Your task to perform on an android device: Open Google Maps and go to "Timeline" Image 0: 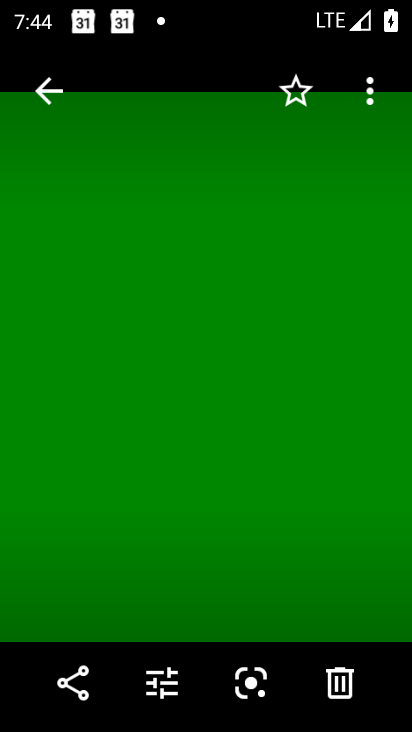
Step 0: press home button
Your task to perform on an android device: Open Google Maps and go to "Timeline" Image 1: 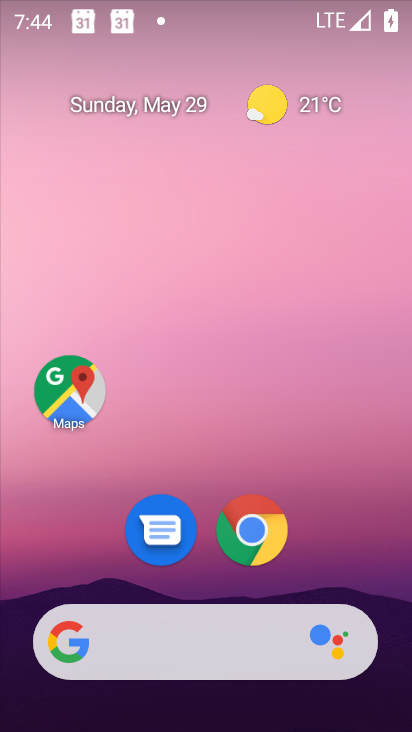
Step 1: drag from (253, 687) to (236, 102)
Your task to perform on an android device: Open Google Maps and go to "Timeline" Image 2: 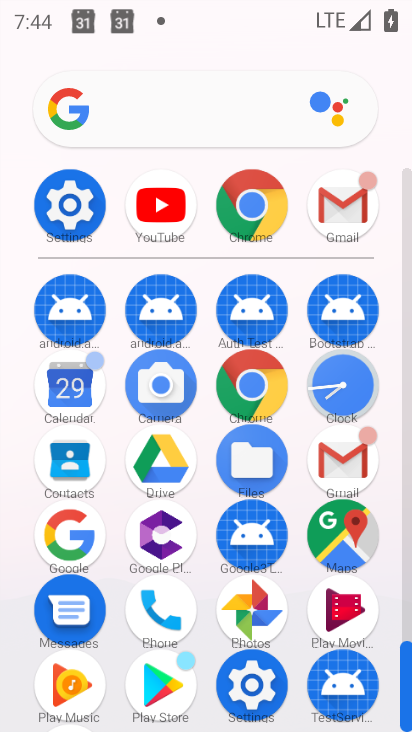
Step 2: click (350, 560)
Your task to perform on an android device: Open Google Maps and go to "Timeline" Image 3: 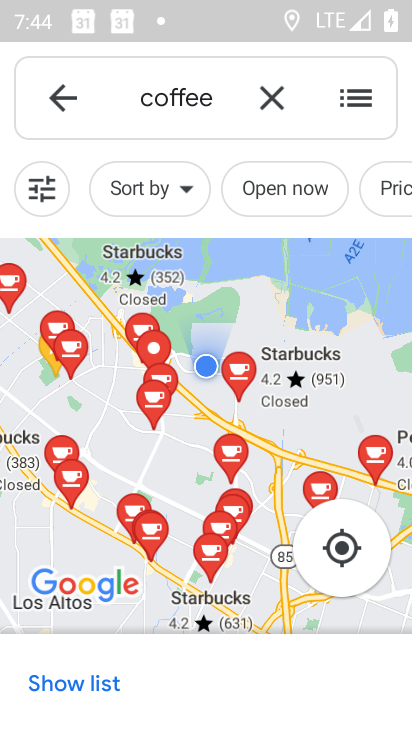
Step 3: click (52, 84)
Your task to perform on an android device: Open Google Maps and go to "Timeline" Image 4: 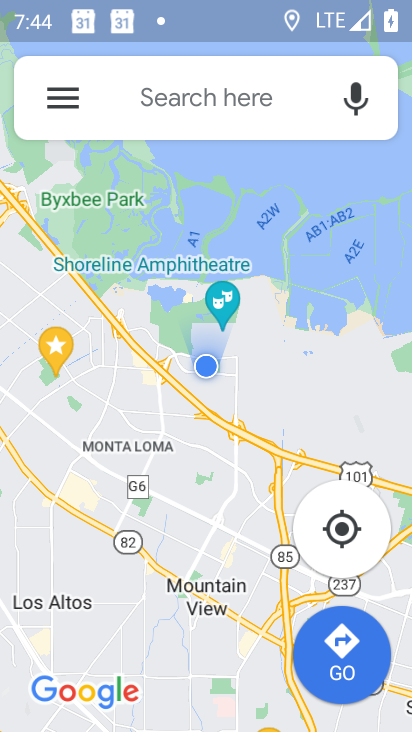
Step 4: click (53, 101)
Your task to perform on an android device: Open Google Maps and go to "Timeline" Image 5: 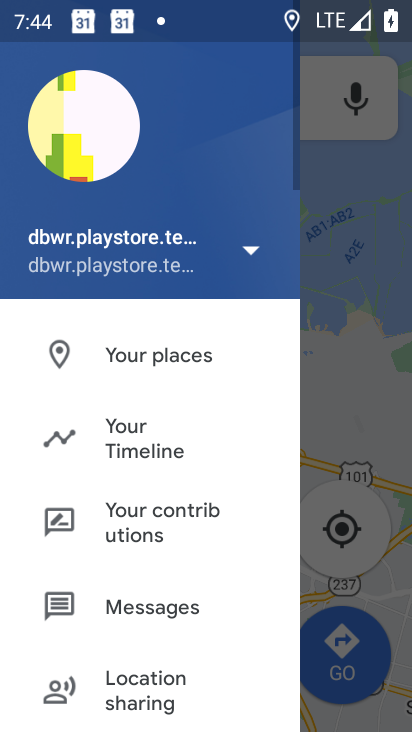
Step 5: click (160, 454)
Your task to perform on an android device: Open Google Maps and go to "Timeline" Image 6: 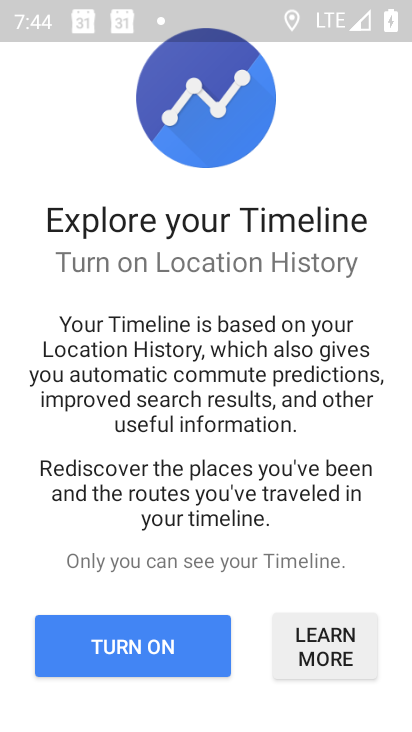
Step 6: click (181, 662)
Your task to perform on an android device: Open Google Maps and go to "Timeline" Image 7: 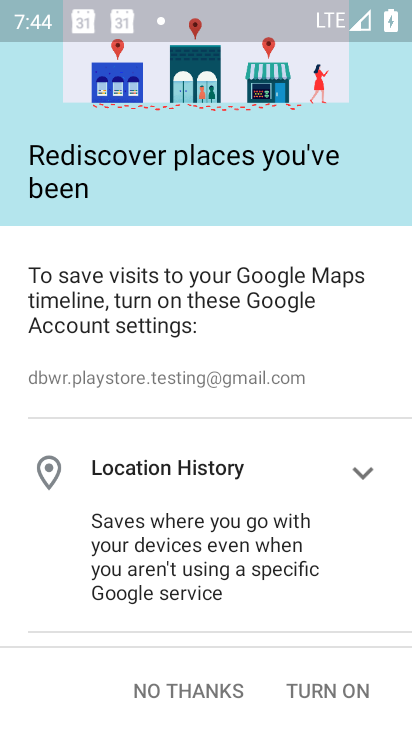
Step 7: click (205, 682)
Your task to perform on an android device: Open Google Maps and go to "Timeline" Image 8: 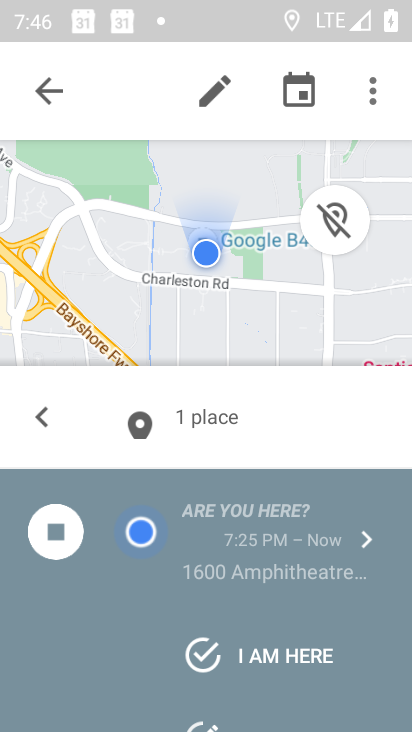
Step 8: task complete